Your task to perform on an android device: Open Chrome and go to settings Image 0: 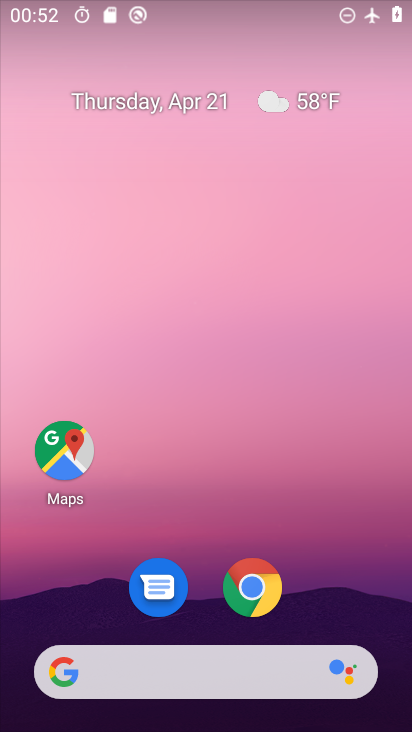
Step 0: click (300, 557)
Your task to perform on an android device: Open Chrome and go to settings Image 1: 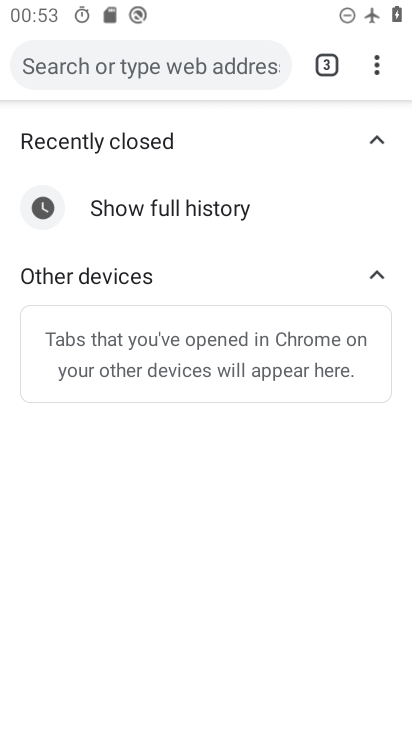
Step 1: task complete